Your task to perform on an android device: What is the recent news? Image 0: 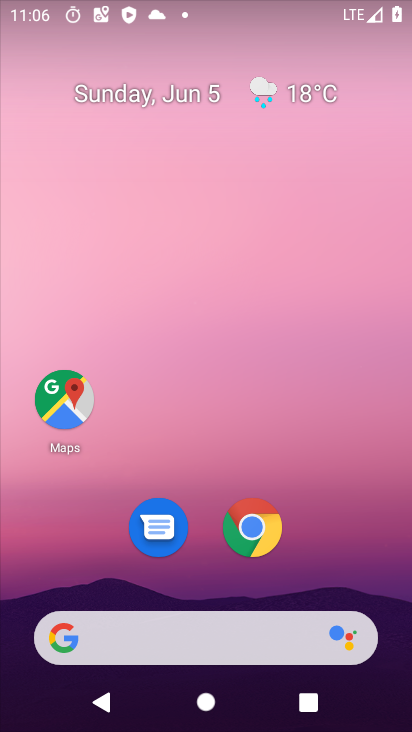
Step 0: drag from (371, 561) to (233, 1)
Your task to perform on an android device: What is the recent news? Image 1: 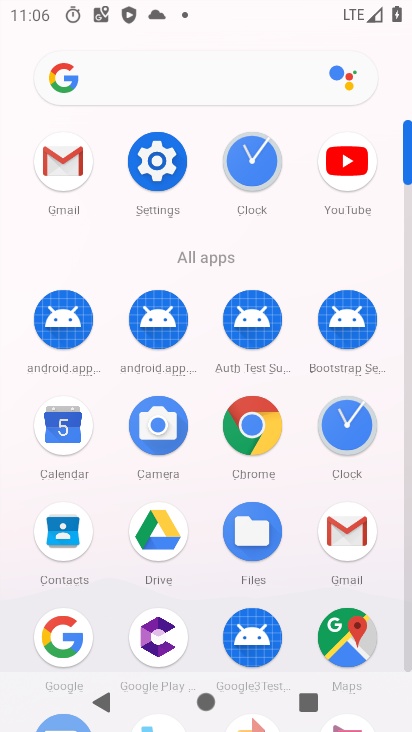
Step 1: click (70, 640)
Your task to perform on an android device: What is the recent news? Image 2: 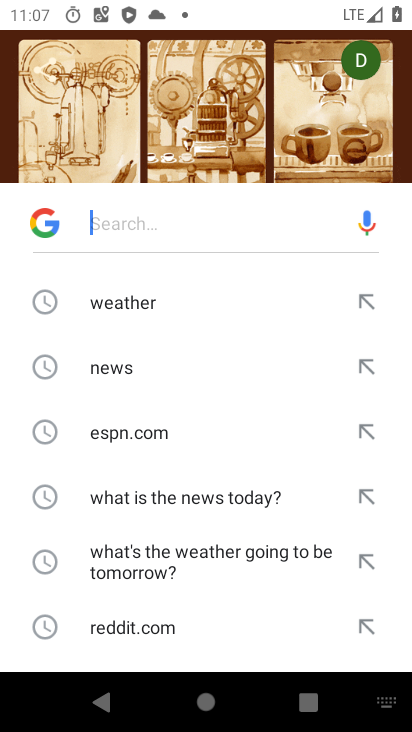
Step 2: drag from (210, 554) to (205, 174)
Your task to perform on an android device: What is the recent news? Image 3: 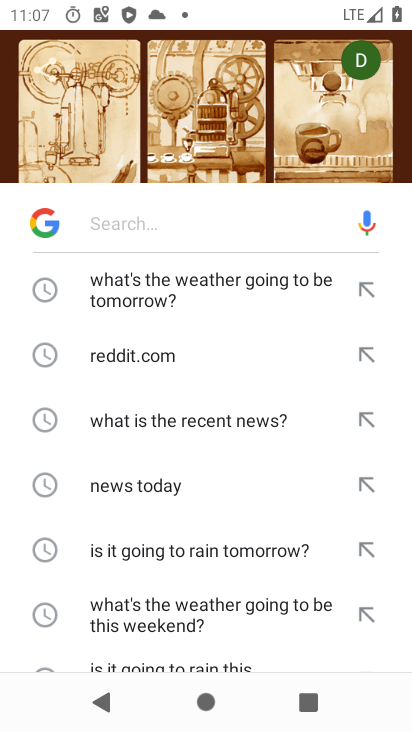
Step 3: drag from (155, 599) to (216, 130)
Your task to perform on an android device: What is the recent news? Image 4: 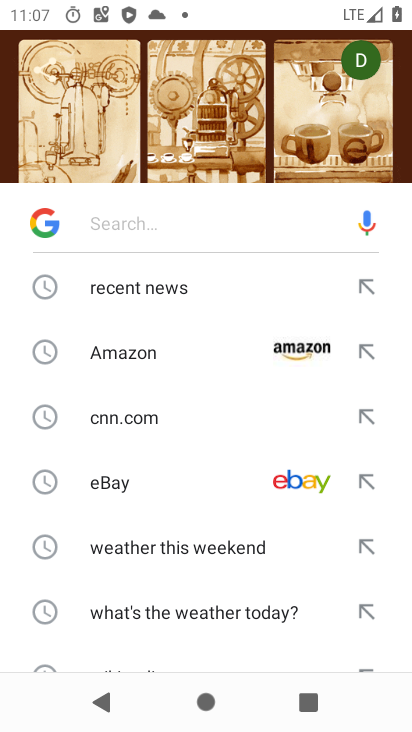
Step 4: drag from (187, 552) to (203, 141)
Your task to perform on an android device: What is the recent news? Image 5: 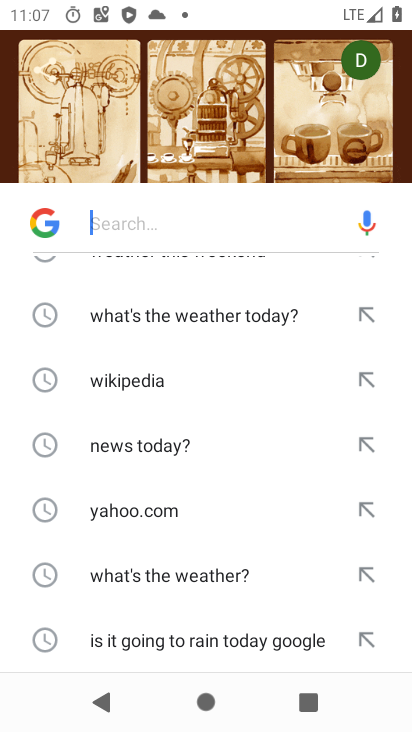
Step 5: drag from (218, 373) to (219, 653)
Your task to perform on an android device: What is the recent news? Image 6: 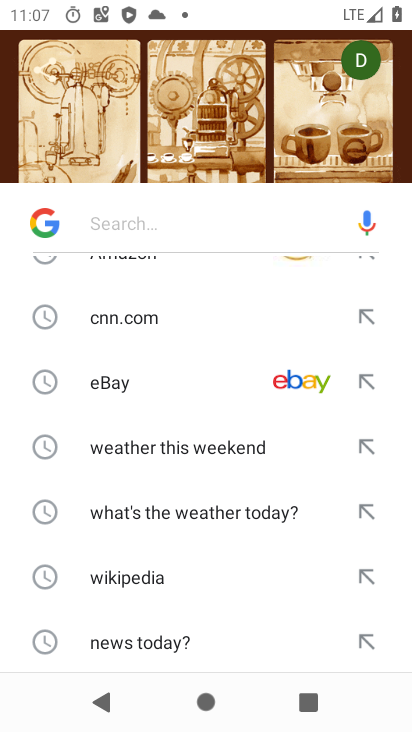
Step 6: drag from (194, 327) to (212, 632)
Your task to perform on an android device: What is the recent news? Image 7: 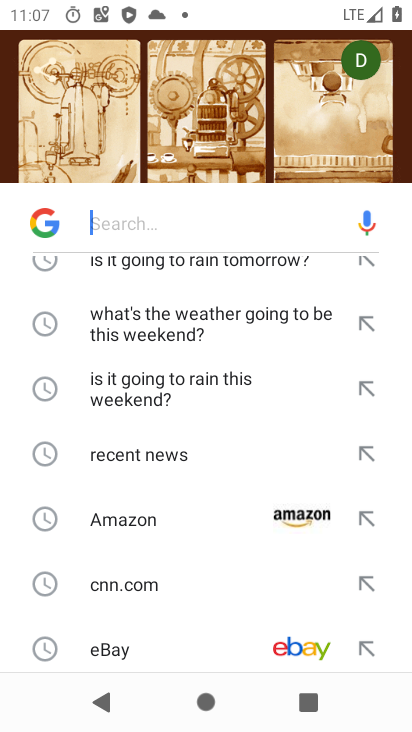
Step 7: click (172, 459)
Your task to perform on an android device: What is the recent news? Image 8: 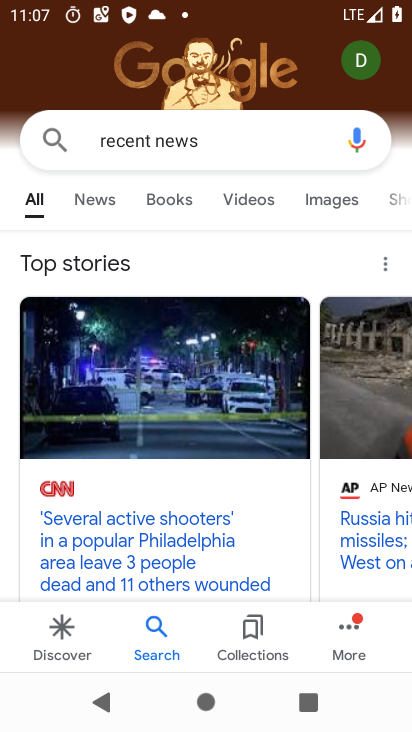
Step 8: task complete